Your task to perform on an android device: change notification settings in the gmail app Image 0: 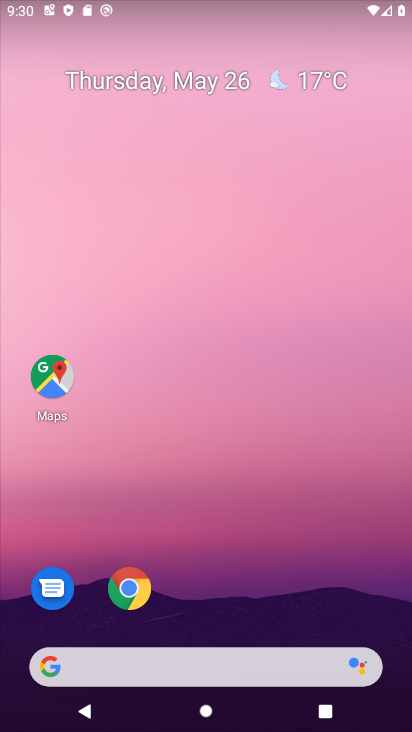
Step 0: drag from (362, 628) to (331, 48)
Your task to perform on an android device: change notification settings in the gmail app Image 1: 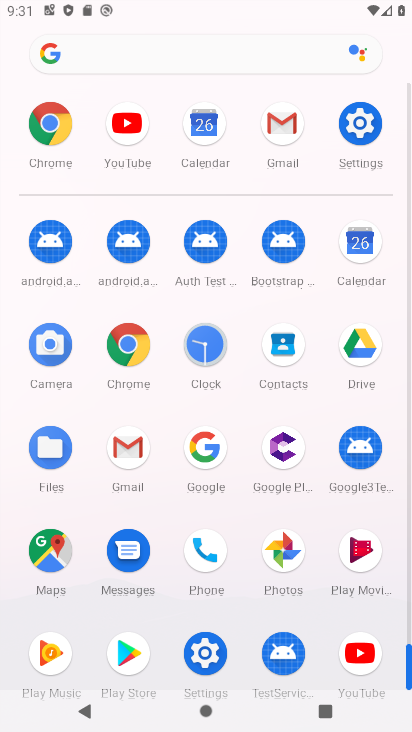
Step 1: click (129, 449)
Your task to perform on an android device: change notification settings in the gmail app Image 2: 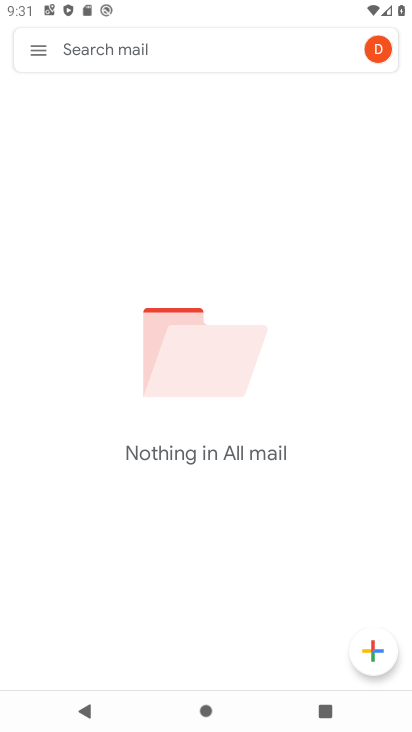
Step 2: click (37, 52)
Your task to perform on an android device: change notification settings in the gmail app Image 3: 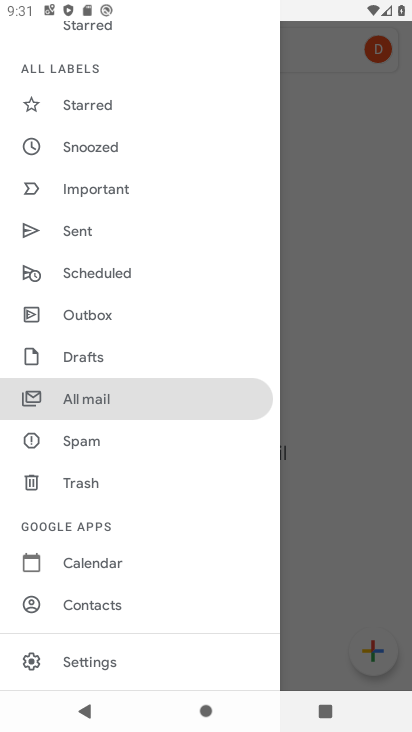
Step 3: click (82, 652)
Your task to perform on an android device: change notification settings in the gmail app Image 4: 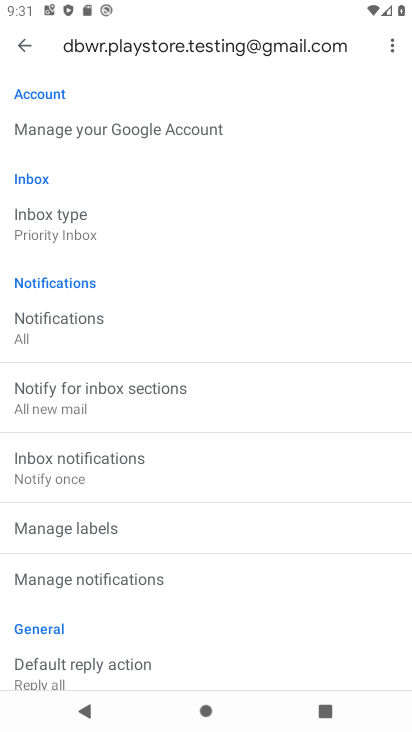
Step 4: click (82, 570)
Your task to perform on an android device: change notification settings in the gmail app Image 5: 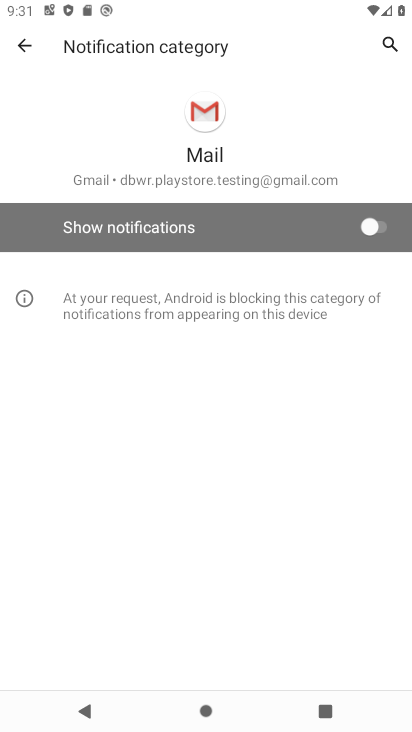
Step 5: click (378, 228)
Your task to perform on an android device: change notification settings in the gmail app Image 6: 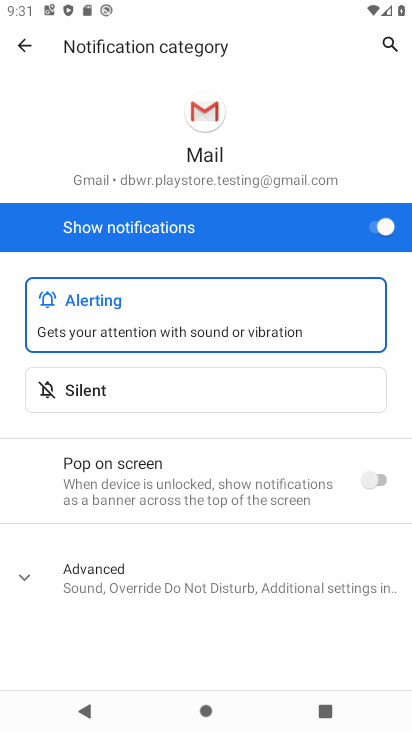
Step 6: task complete